Your task to perform on an android device: Open the phone app and click the voicemail tab. Image 0: 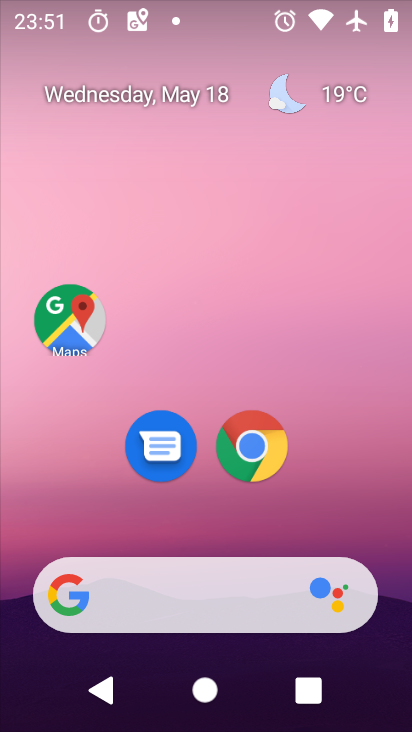
Step 0: press home button
Your task to perform on an android device: Open the phone app and click the voicemail tab. Image 1: 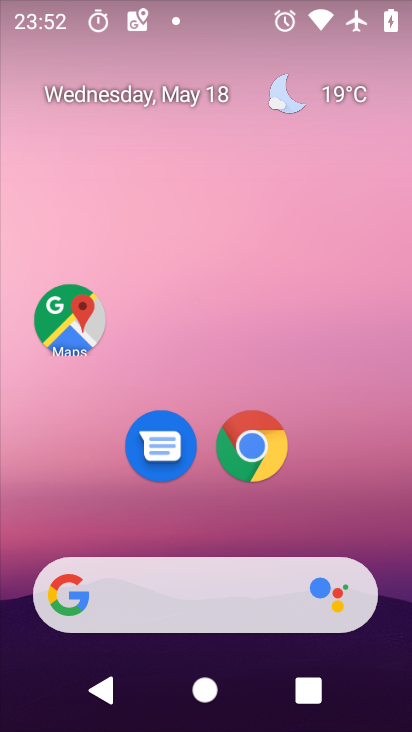
Step 1: press home button
Your task to perform on an android device: Open the phone app and click the voicemail tab. Image 2: 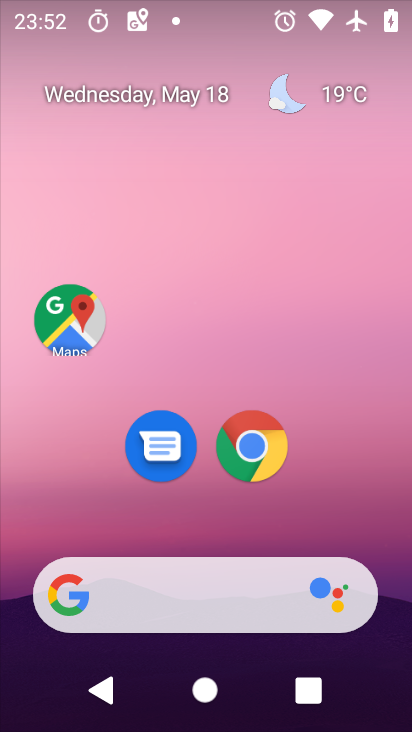
Step 2: drag from (183, 554) to (284, 108)
Your task to perform on an android device: Open the phone app and click the voicemail tab. Image 3: 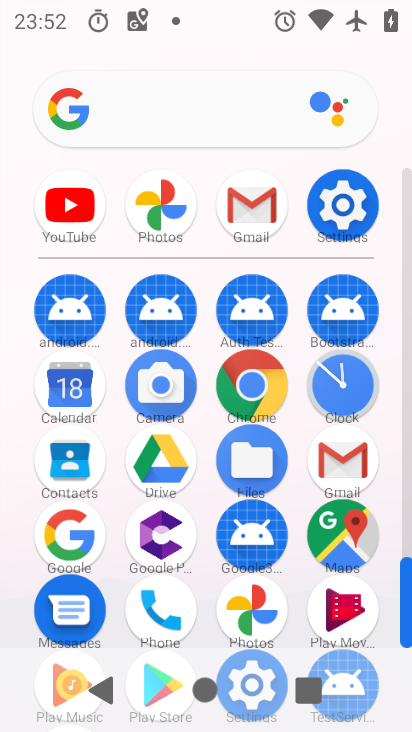
Step 3: click (155, 621)
Your task to perform on an android device: Open the phone app and click the voicemail tab. Image 4: 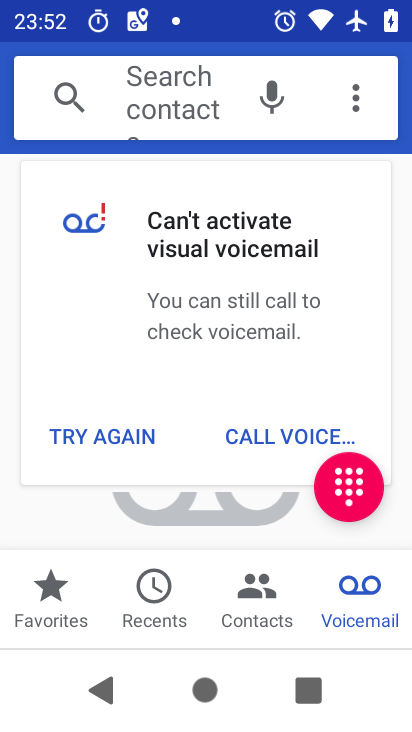
Step 4: click (361, 597)
Your task to perform on an android device: Open the phone app and click the voicemail tab. Image 5: 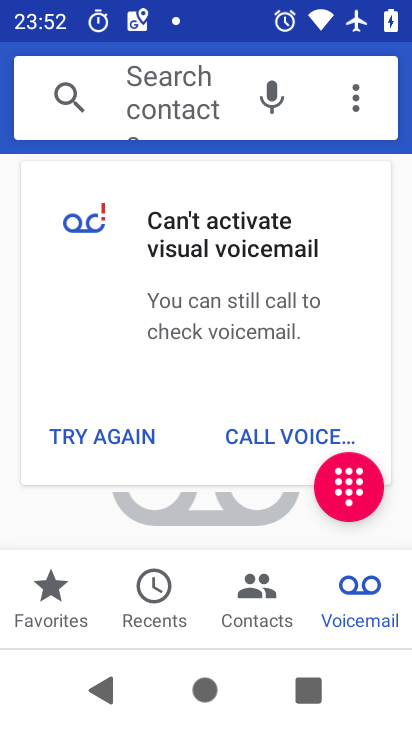
Step 5: task complete